Your task to perform on an android device: Go to Wikipedia Image 0: 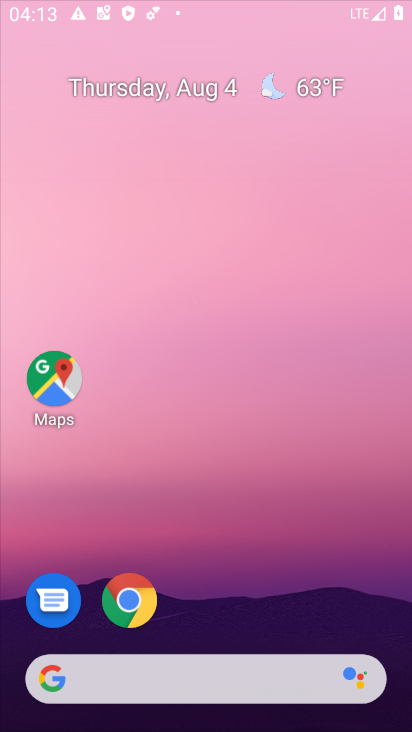
Step 0: click (313, 170)
Your task to perform on an android device: Go to Wikipedia Image 1: 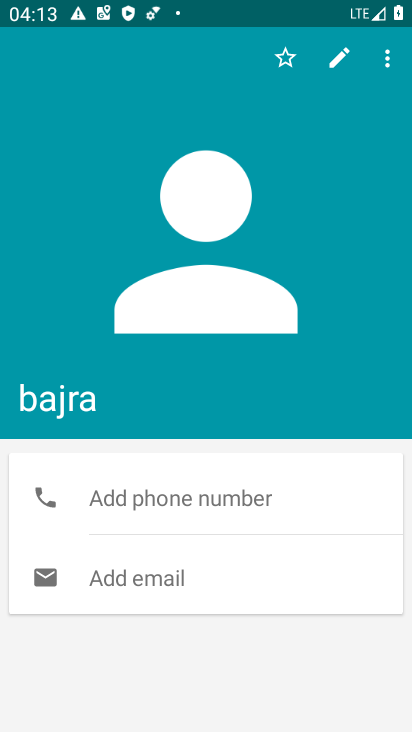
Step 1: press home button
Your task to perform on an android device: Go to Wikipedia Image 2: 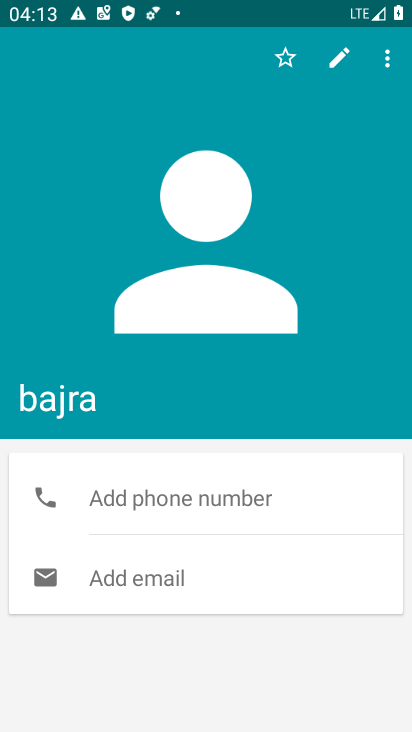
Step 2: press home button
Your task to perform on an android device: Go to Wikipedia Image 3: 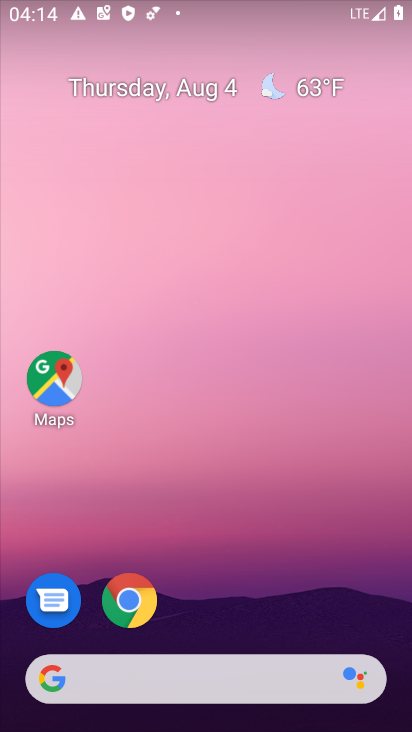
Step 3: drag from (302, 552) to (342, 108)
Your task to perform on an android device: Go to Wikipedia Image 4: 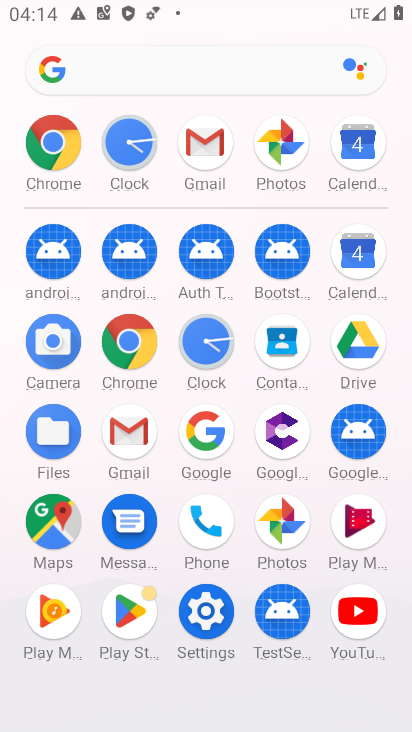
Step 4: click (129, 343)
Your task to perform on an android device: Go to Wikipedia Image 5: 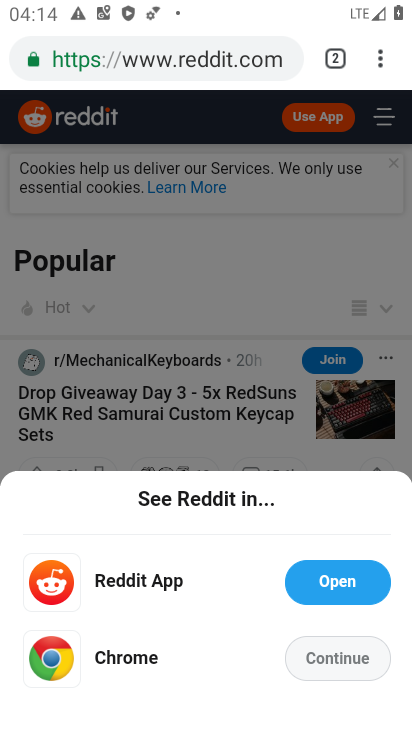
Step 5: click (211, 51)
Your task to perform on an android device: Go to Wikipedia Image 6: 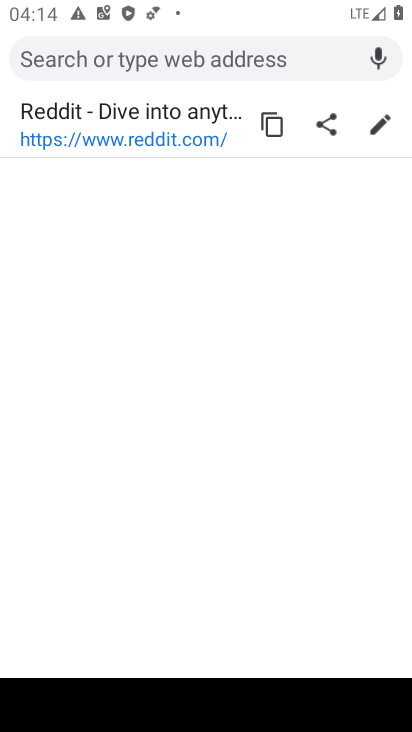
Step 6: press enter
Your task to perform on an android device: Go to Wikipedia Image 7: 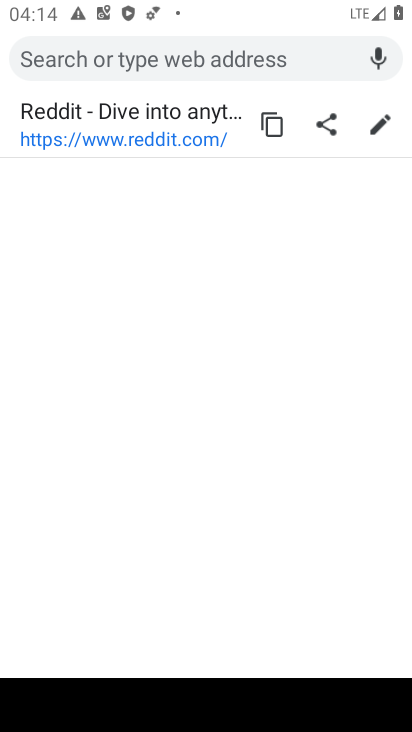
Step 7: type "wikipedia"
Your task to perform on an android device: Go to Wikipedia Image 8: 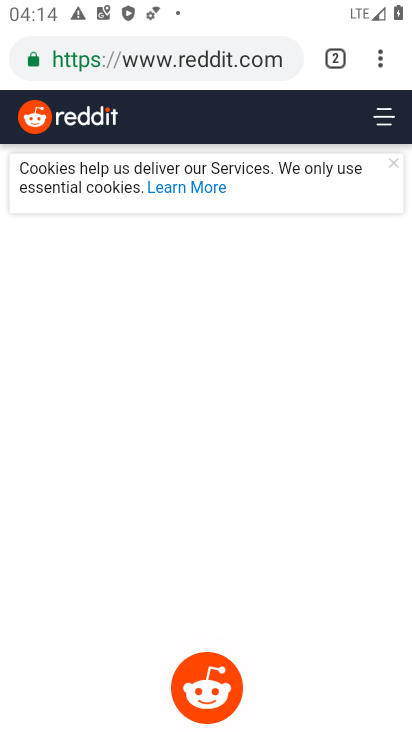
Step 8: click (195, 53)
Your task to perform on an android device: Go to Wikipedia Image 9: 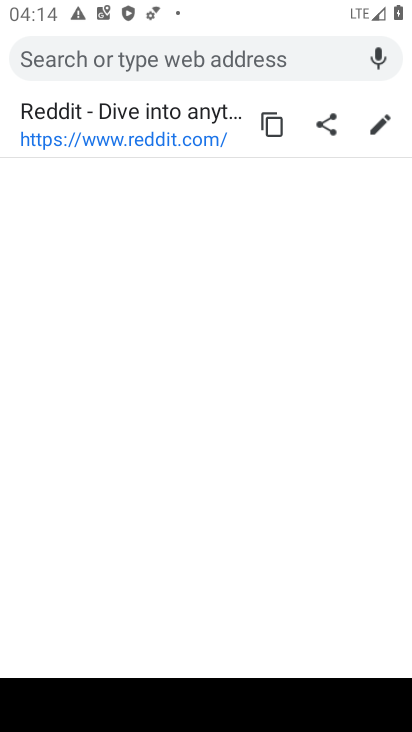
Step 9: type "wikipedia"
Your task to perform on an android device: Go to Wikipedia Image 10: 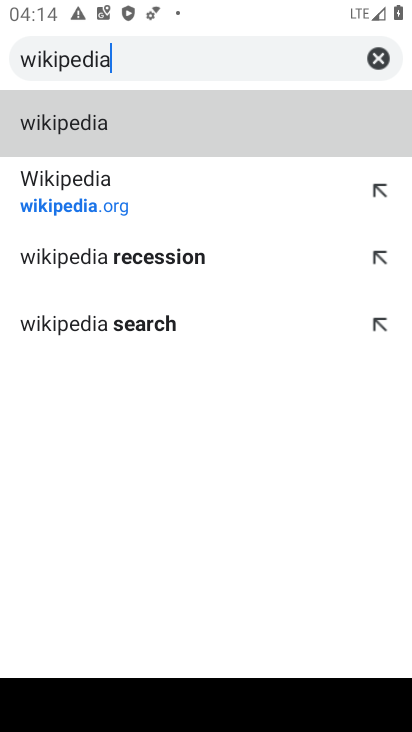
Step 10: click (88, 200)
Your task to perform on an android device: Go to Wikipedia Image 11: 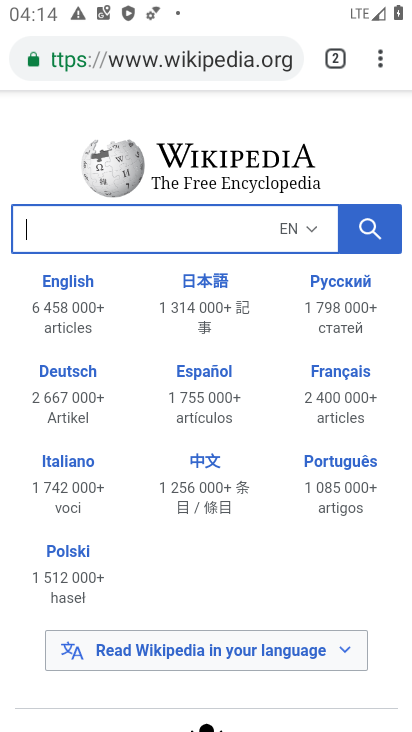
Step 11: task complete